Your task to perform on an android device: find snoozed emails in the gmail app Image 0: 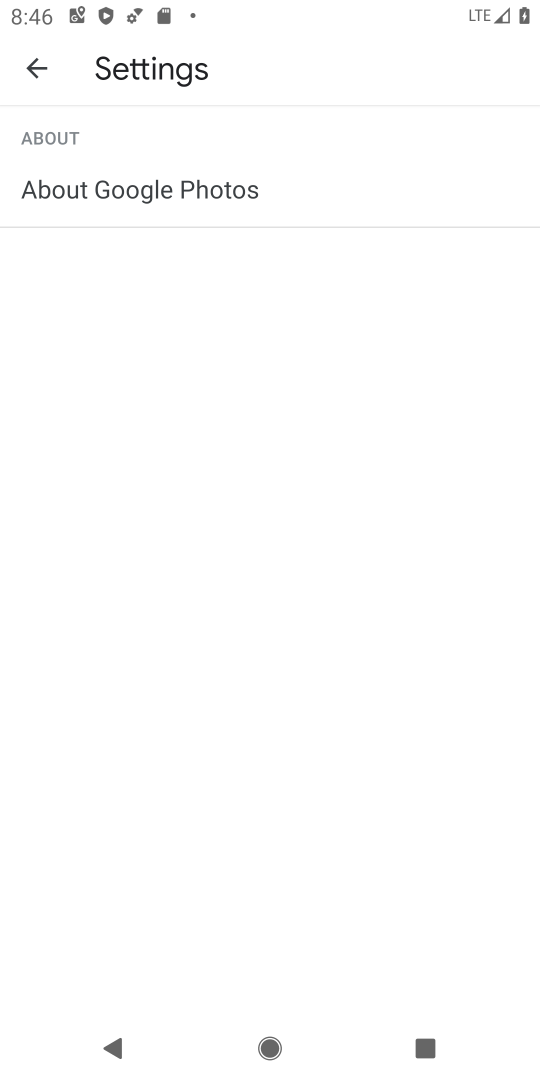
Step 0: press home button
Your task to perform on an android device: find snoozed emails in the gmail app Image 1: 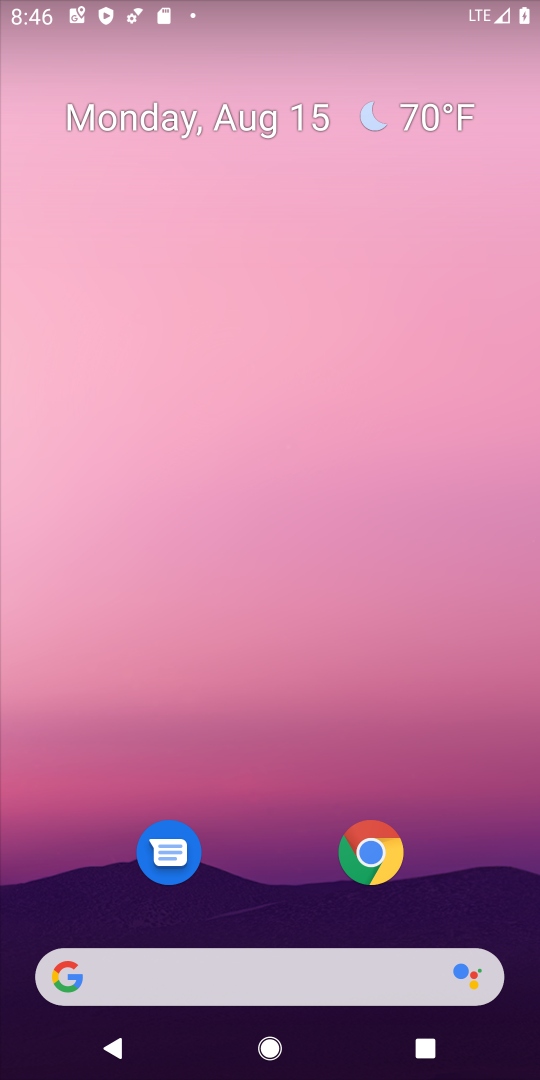
Step 1: drag from (221, 984) to (246, 180)
Your task to perform on an android device: find snoozed emails in the gmail app Image 2: 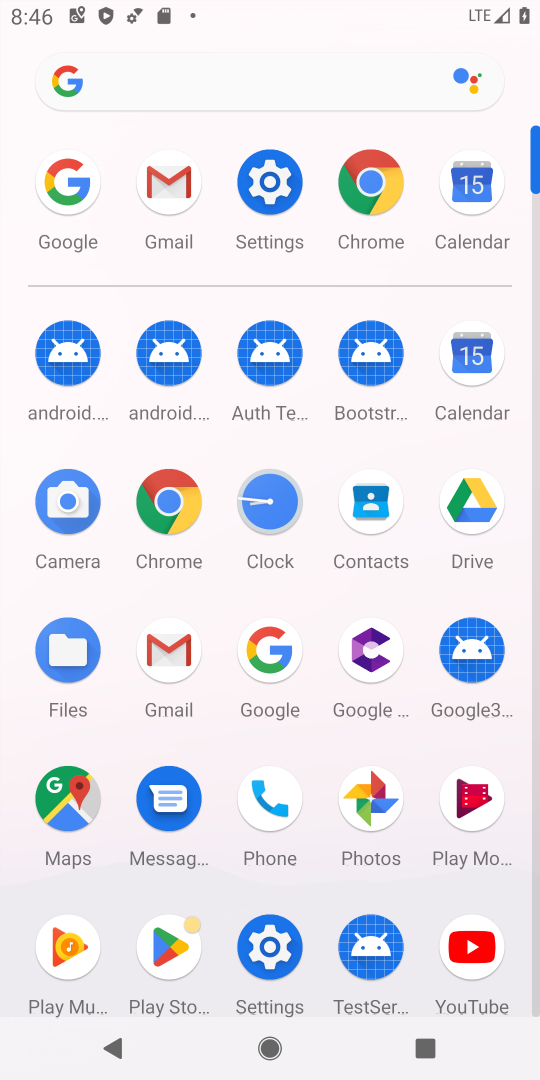
Step 2: click (166, 181)
Your task to perform on an android device: find snoozed emails in the gmail app Image 3: 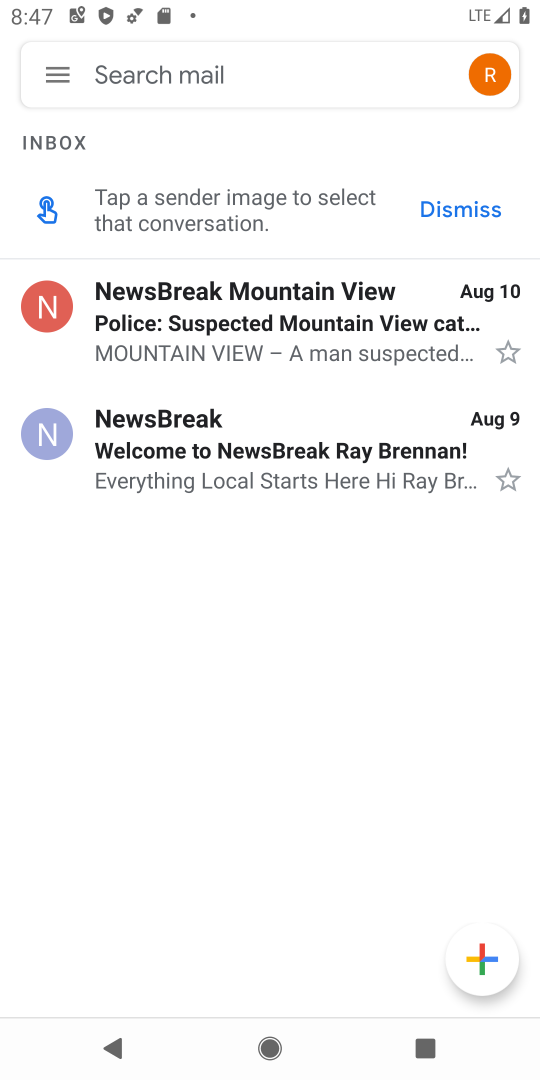
Step 3: click (58, 77)
Your task to perform on an android device: find snoozed emails in the gmail app Image 4: 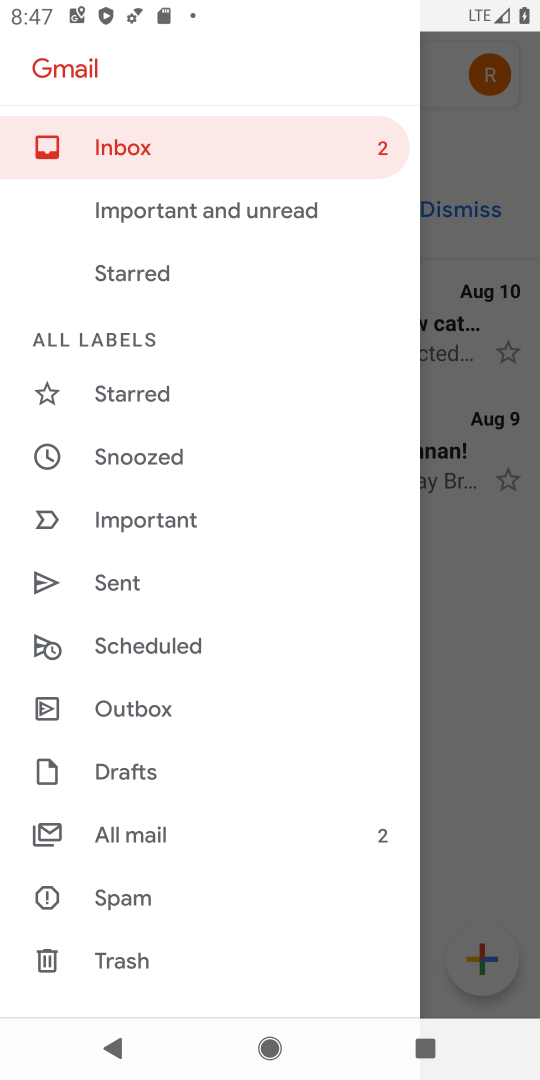
Step 4: drag from (129, 932) to (138, 568)
Your task to perform on an android device: find snoozed emails in the gmail app Image 5: 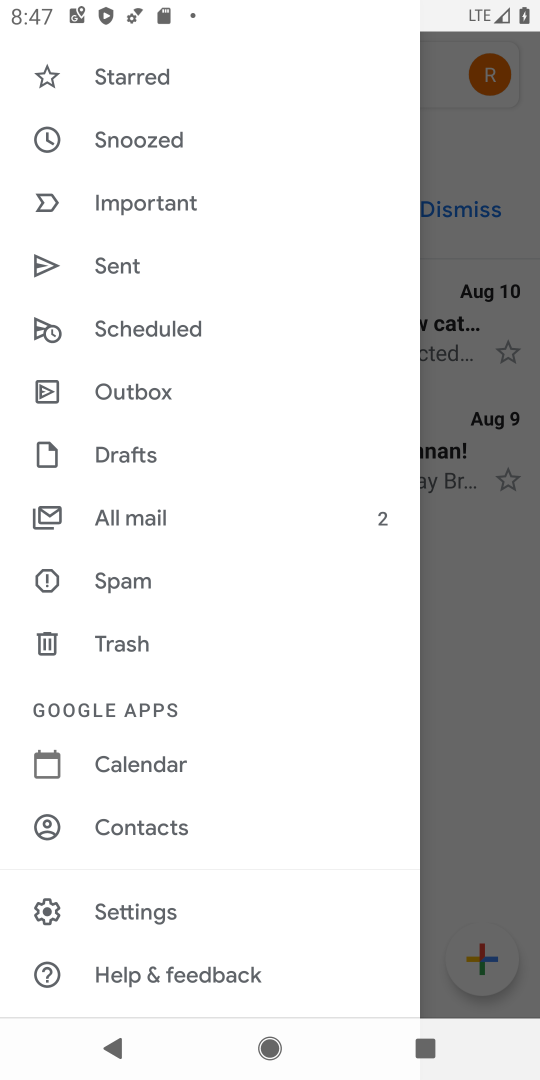
Step 5: click (150, 144)
Your task to perform on an android device: find snoozed emails in the gmail app Image 6: 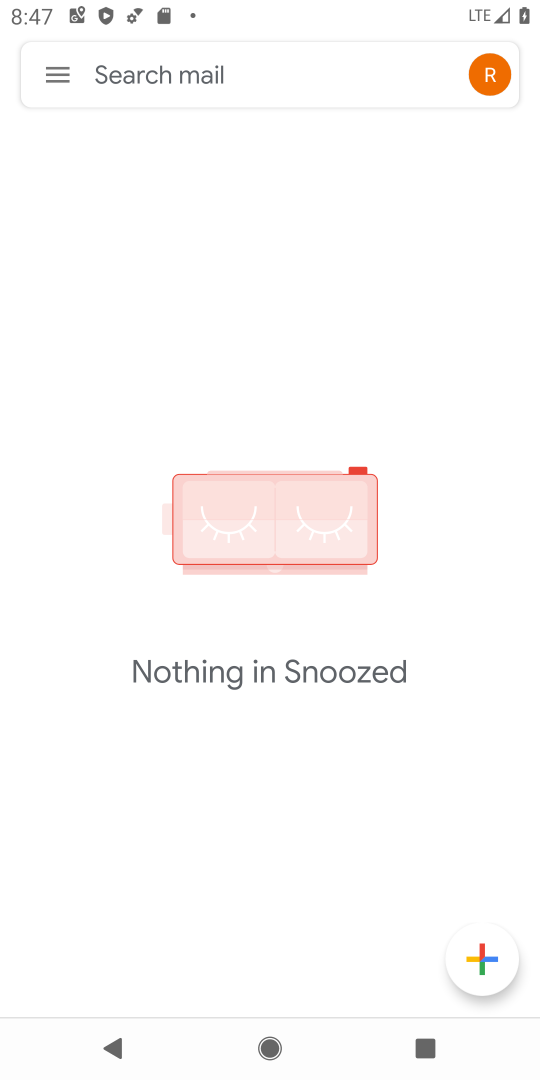
Step 6: click (51, 78)
Your task to perform on an android device: find snoozed emails in the gmail app Image 7: 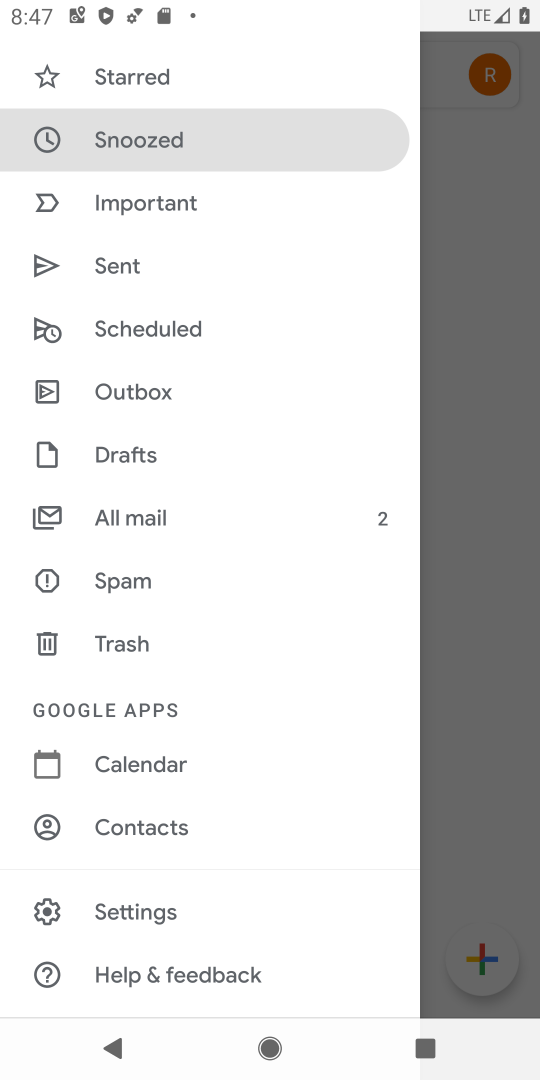
Step 7: task complete